Your task to perform on an android device: Open display settings Image 0: 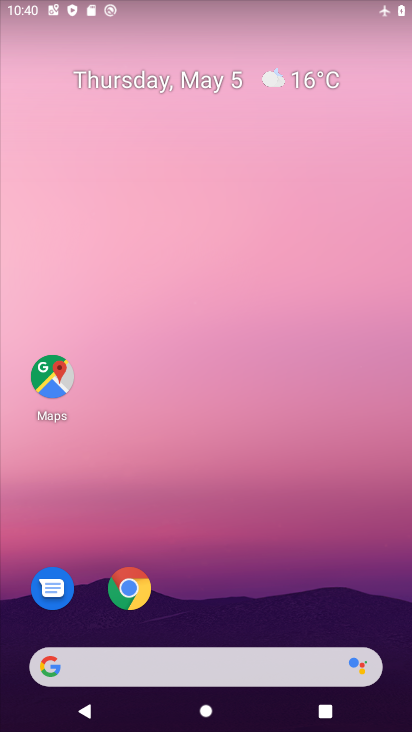
Step 0: drag from (277, 603) to (277, 130)
Your task to perform on an android device: Open display settings Image 1: 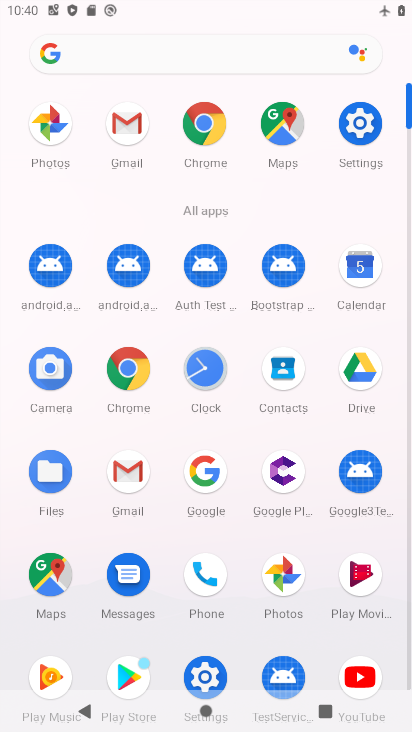
Step 1: click (362, 131)
Your task to perform on an android device: Open display settings Image 2: 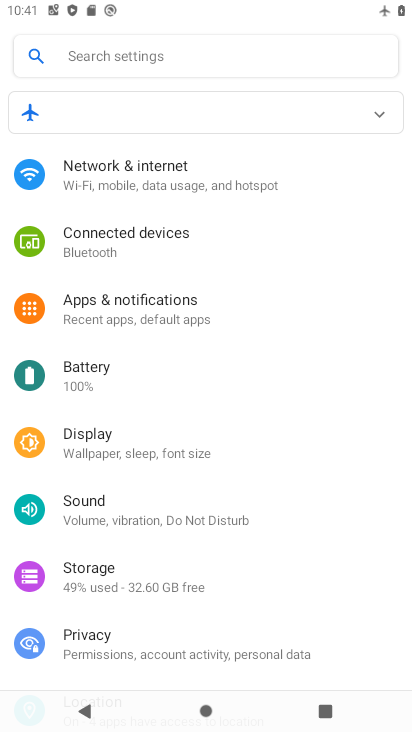
Step 2: click (169, 440)
Your task to perform on an android device: Open display settings Image 3: 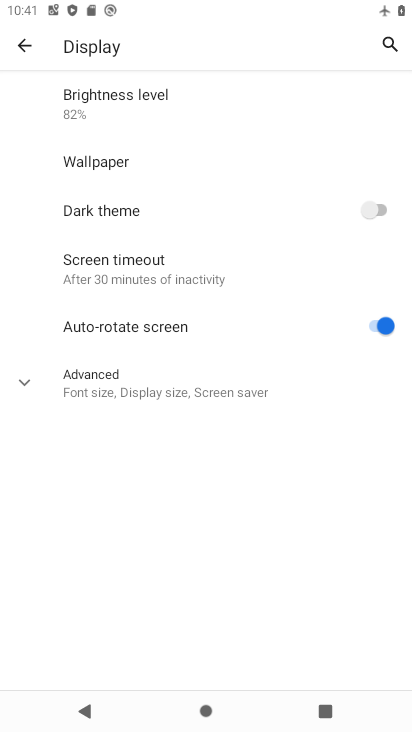
Step 3: click (175, 395)
Your task to perform on an android device: Open display settings Image 4: 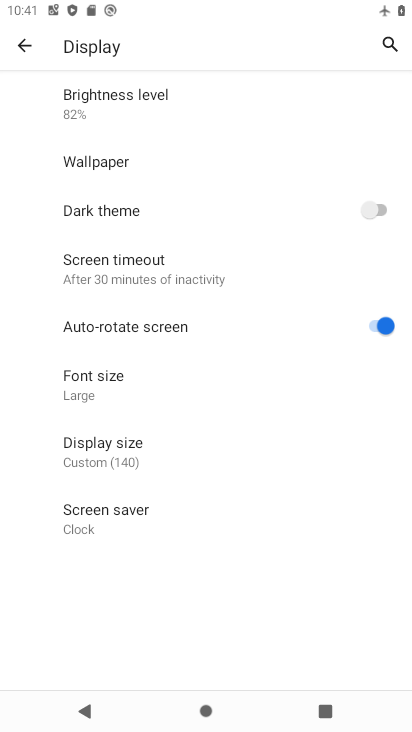
Step 4: task complete